Your task to perform on an android device: turn on javascript in the chrome app Image 0: 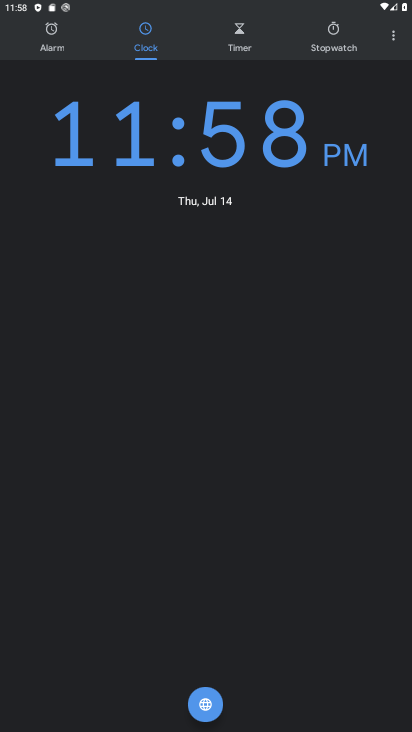
Step 0: press home button
Your task to perform on an android device: turn on javascript in the chrome app Image 1: 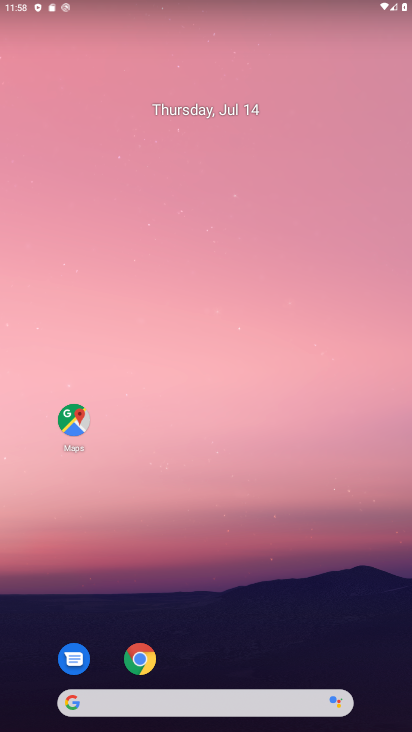
Step 1: click (145, 663)
Your task to perform on an android device: turn on javascript in the chrome app Image 2: 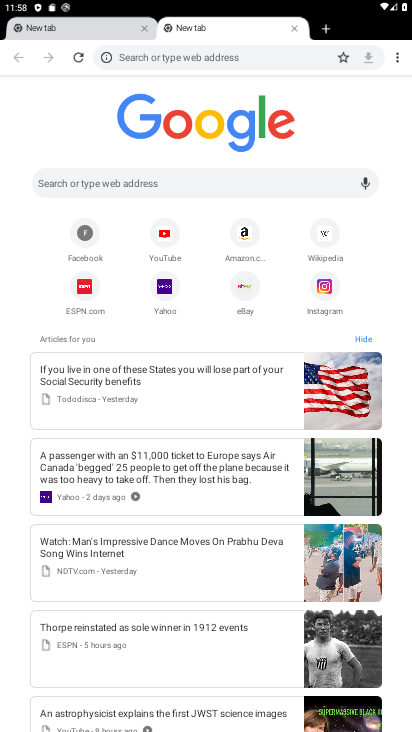
Step 2: click (391, 65)
Your task to perform on an android device: turn on javascript in the chrome app Image 3: 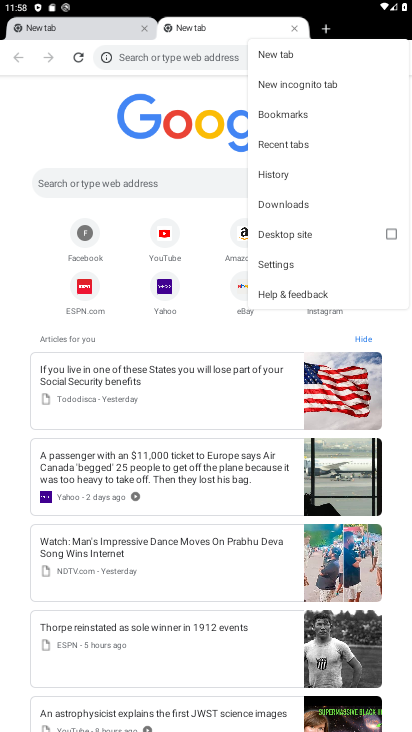
Step 3: click (295, 263)
Your task to perform on an android device: turn on javascript in the chrome app Image 4: 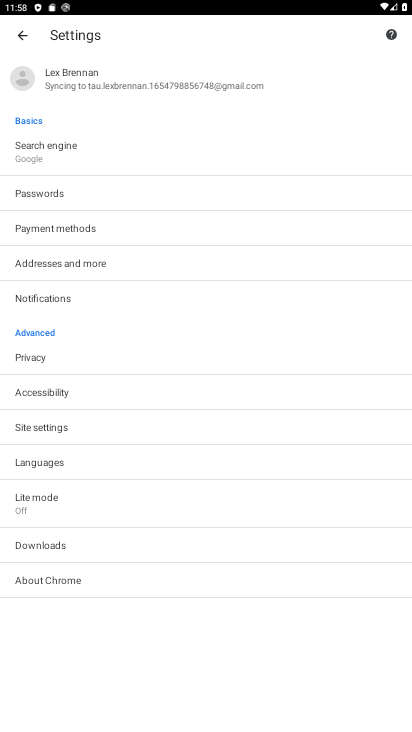
Step 4: click (62, 431)
Your task to perform on an android device: turn on javascript in the chrome app Image 5: 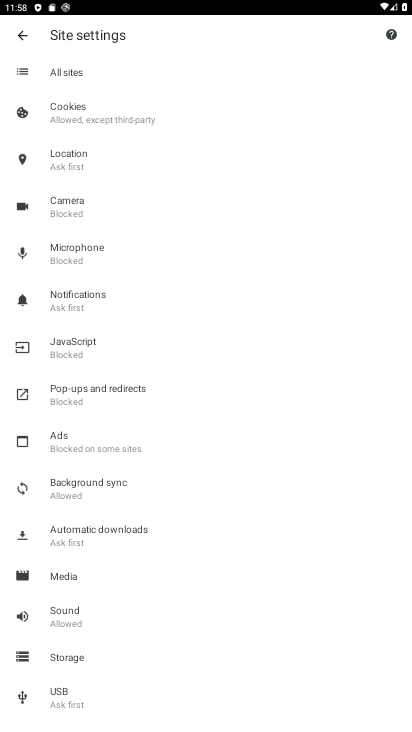
Step 5: click (96, 359)
Your task to perform on an android device: turn on javascript in the chrome app Image 6: 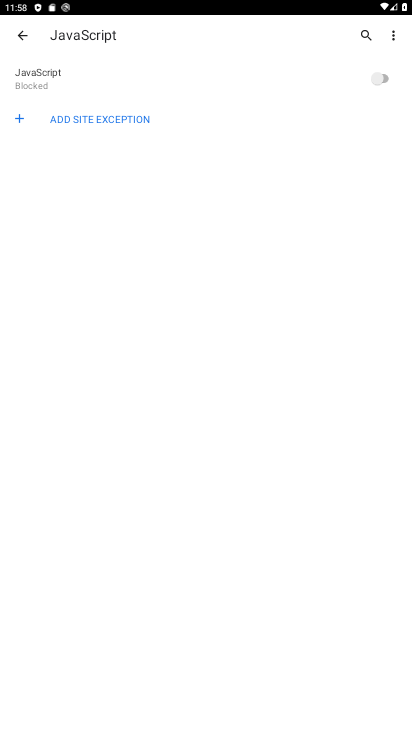
Step 6: click (378, 80)
Your task to perform on an android device: turn on javascript in the chrome app Image 7: 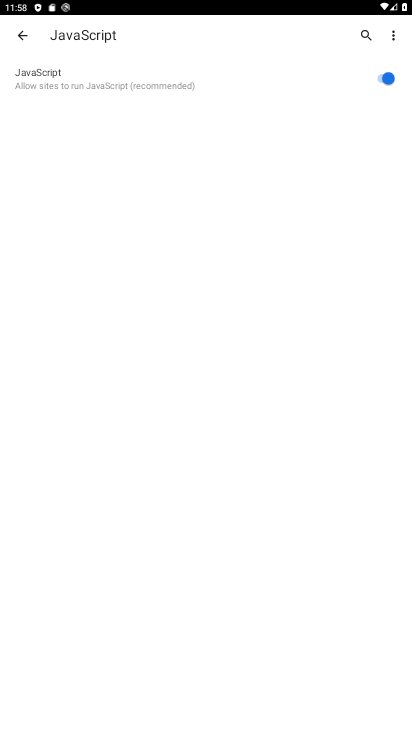
Step 7: task complete